Your task to perform on an android device: turn vacation reply on in the gmail app Image 0: 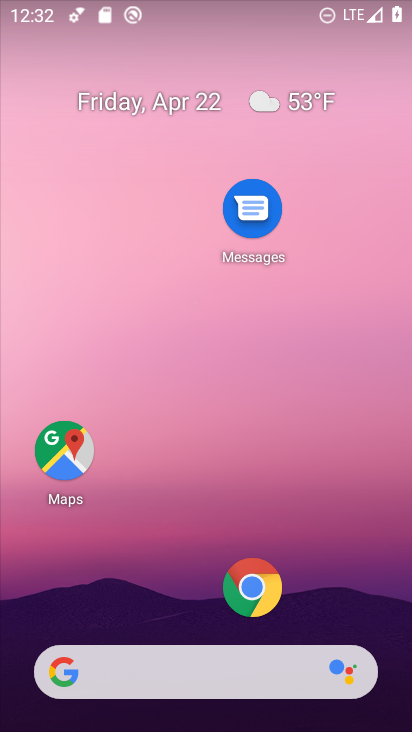
Step 0: press home button
Your task to perform on an android device: turn vacation reply on in the gmail app Image 1: 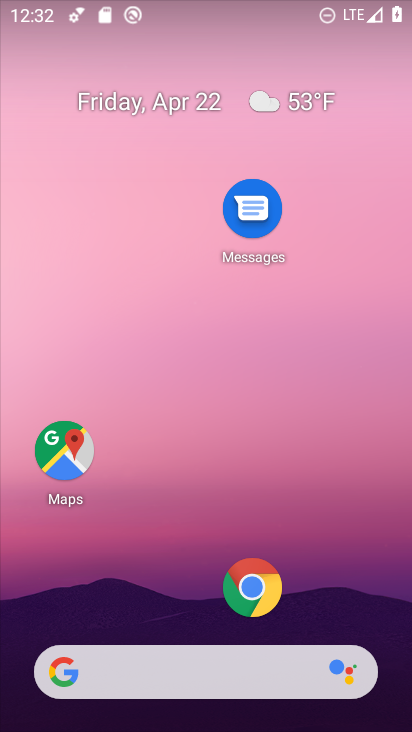
Step 1: drag from (127, 616) to (195, 133)
Your task to perform on an android device: turn vacation reply on in the gmail app Image 2: 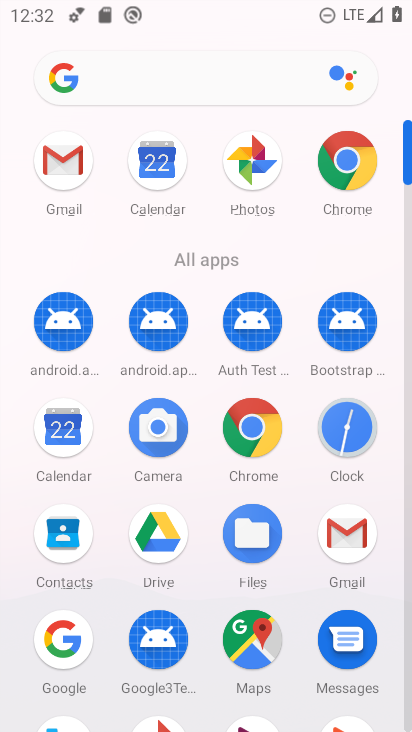
Step 2: click (346, 539)
Your task to perform on an android device: turn vacation reply on in the gmail app Image 3: 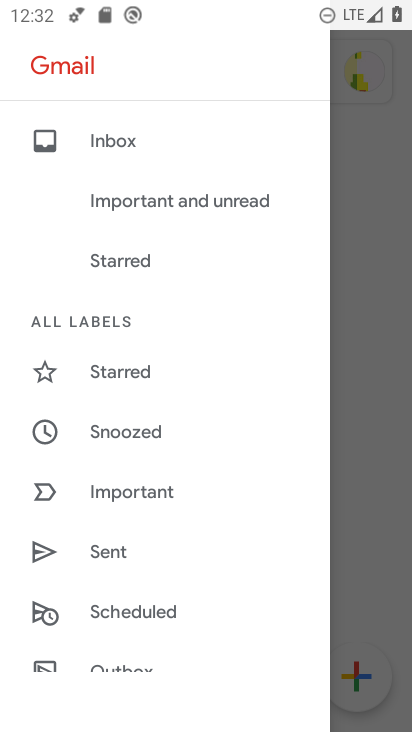
Step 3: drag from (166, 539) to (219, 151)
Your task to perform on an android device: turn vacation reply on in the gmail app Image 4: 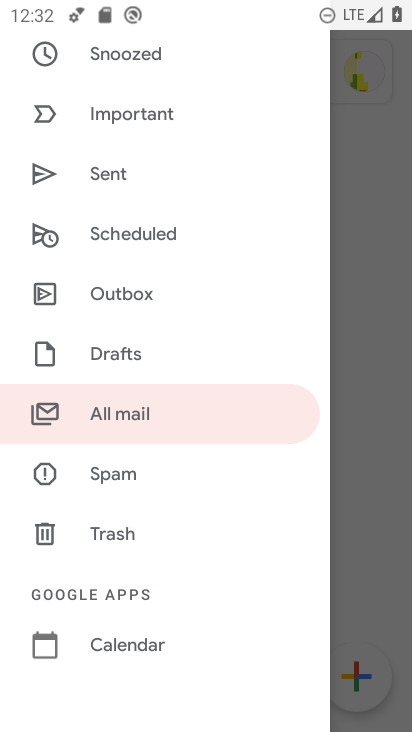
Step 4: drag from (141, 619) to (219, 192)
Your task to perform on an android device: turn vacation reply on in the gmail app Image 5: 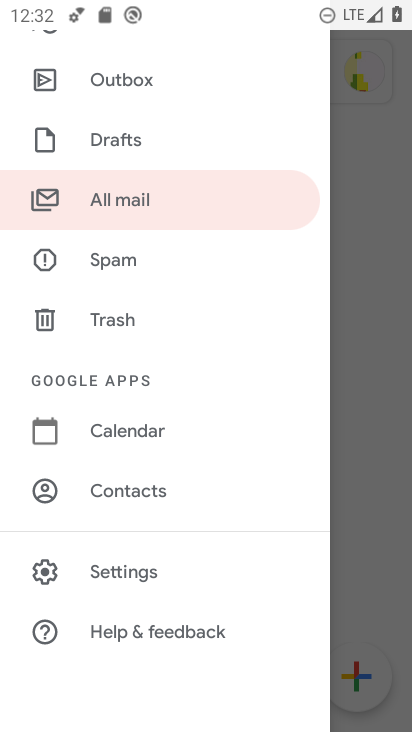
Step 5: click (118, 571)
Your task to perform on an android device: turn vacation reply on in the gmail app Image 6: 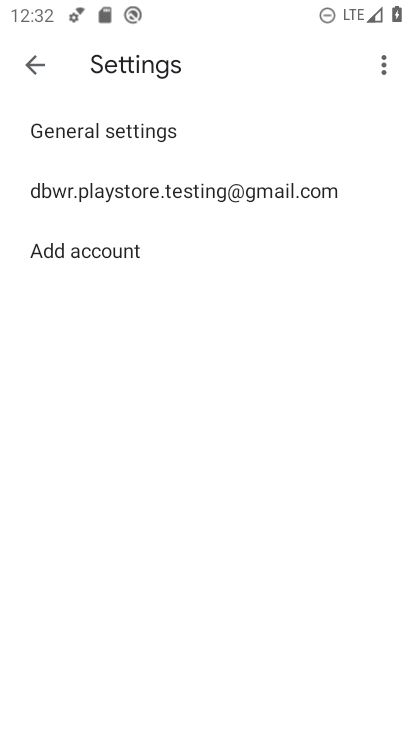
Step 6: click (238, 202)
Your task to perform on an android device: turn vacation reply on in the gmail app Image 7: 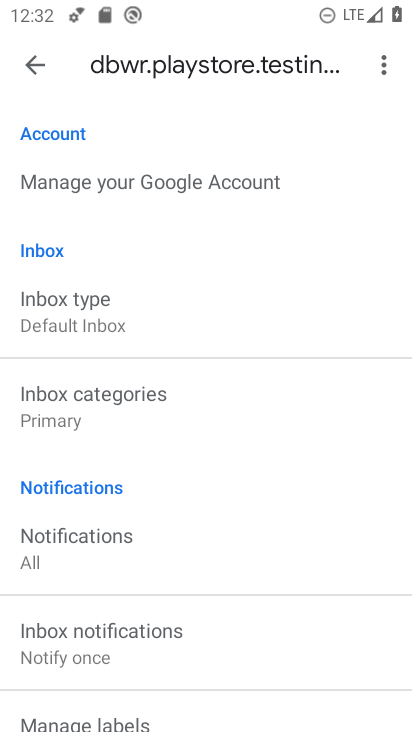
Step 7: drag from (131, 589) to (217, 162)
Your task to perform on an android device: turn vacation reply on in the gmail app Image 8: 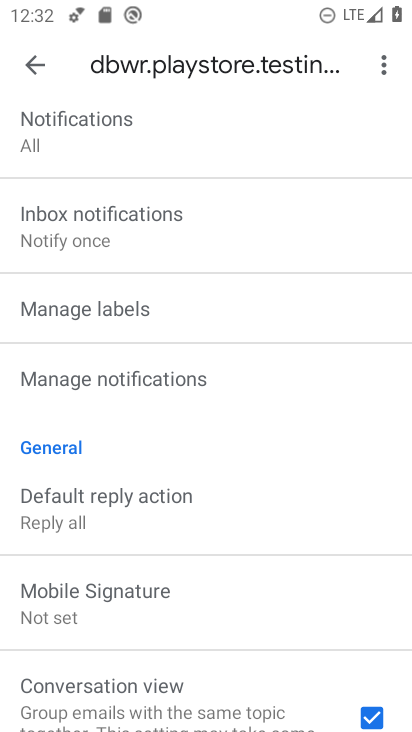
Step 8: drag from (167, 456) to (257, 155)
Your task to perform on an android device: turn vacation reply on in the gmail app Image 9: 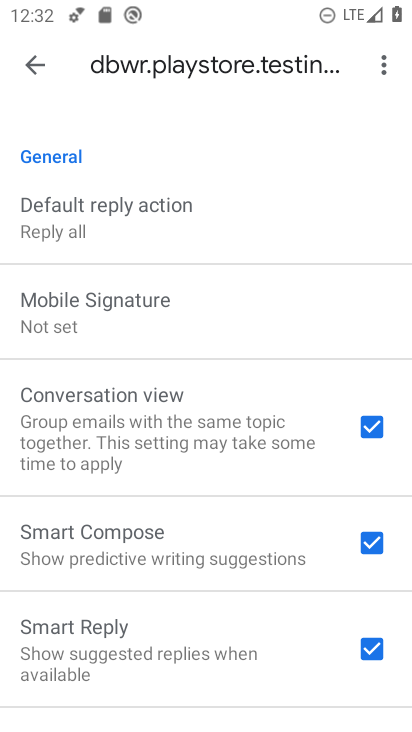
Step 9: drag from (156, 628) to (249, 279)
Your task to perform on an android device: turn vacation reply on in the gmail app Image 10: 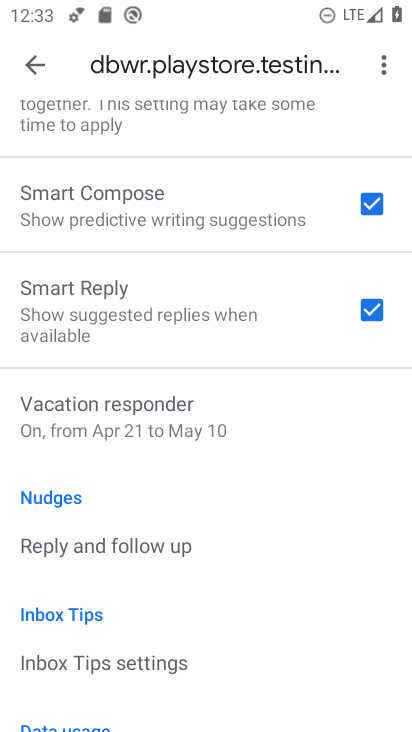
Step 10: drag from (125, 671) to (203, 322)
Your task to perform on an android device: turn vacation reply on in the gmail app Image 11: 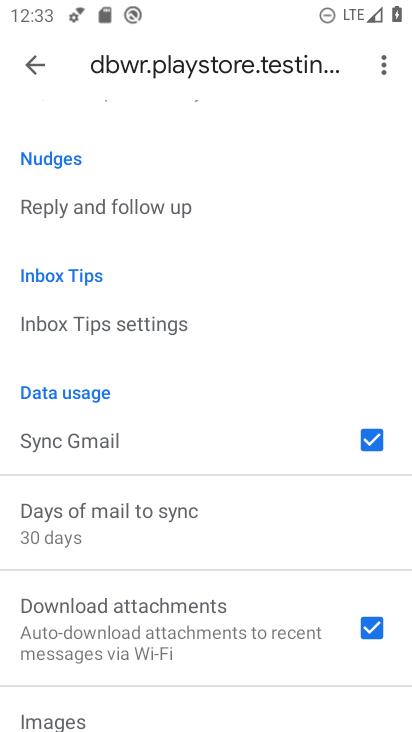
Step 11: drag from (130, 669) to (255, 178)
Your task to perform on an android device: turn vacation reply on in the gmail app Image 12: 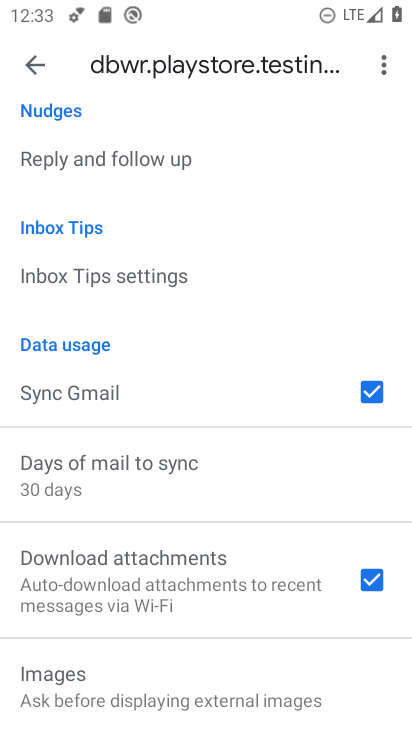
Step 12: drag from (223, 614) to (274, 379)
Your task to perform on an android device: turn vacation reply on in the gmail app Image 13: 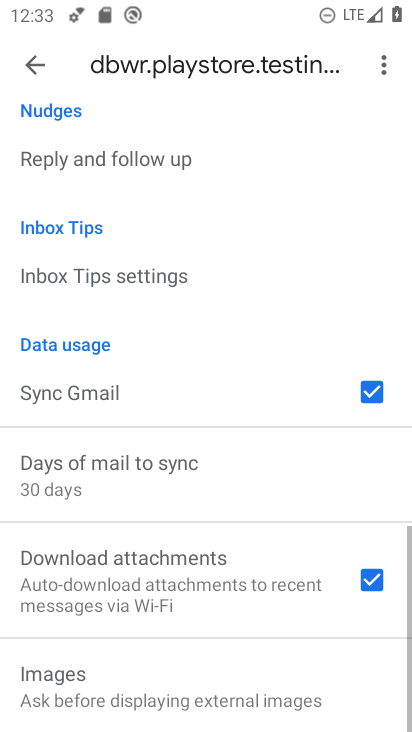
Step 13: drag from (205, 418) to (296, 179)
Your task to perform on an android device: turn vacation reply on in the gmail app Image 14: 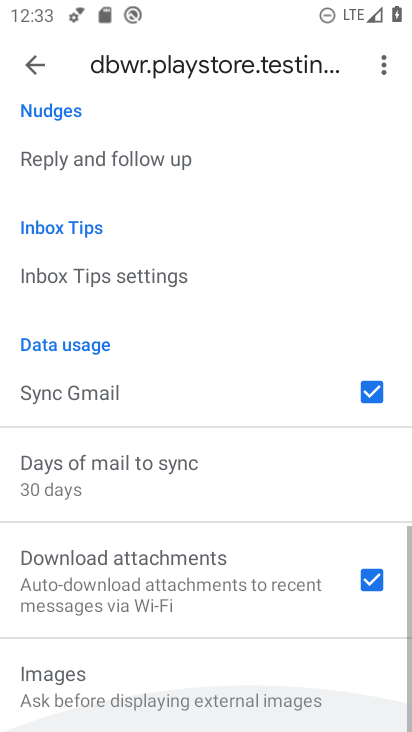
Step 14: drag from (305, 182) to (316, 297)
Your task to perform on an android device: turn vacation reply on in the gmail app Image 15: 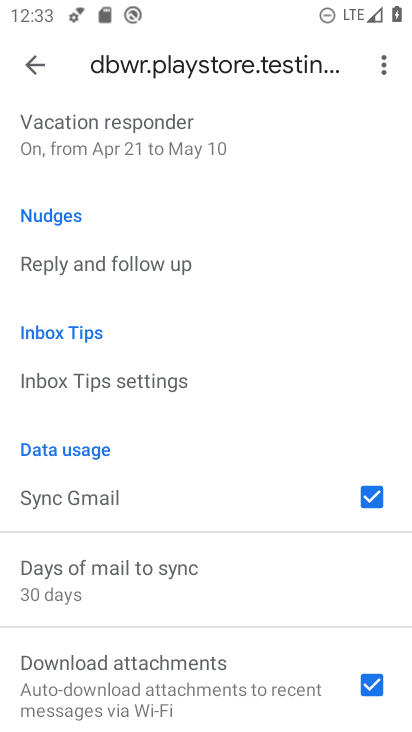
Step 15: click (87, 141)
Your task to perform on an android device: turn vacation reply on in the gmail app Image 16: 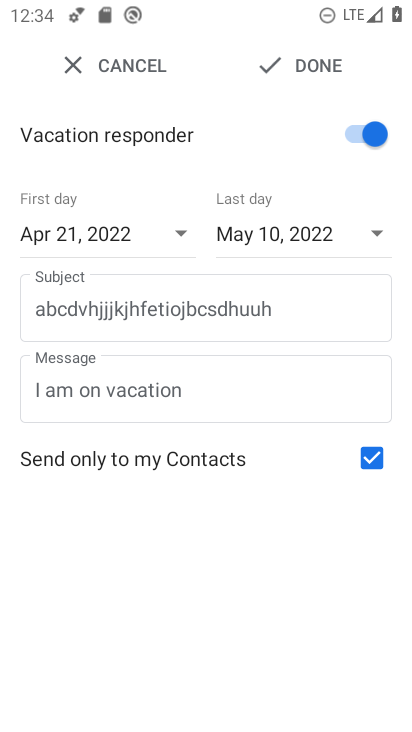
Step 16: task complete